Your task to perform on an android device: Open internet settings Image 0: 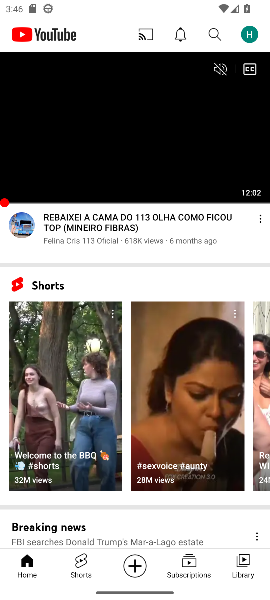
Step 0: press home button
Your task to perform on an android device: Open internet settings Image 1: 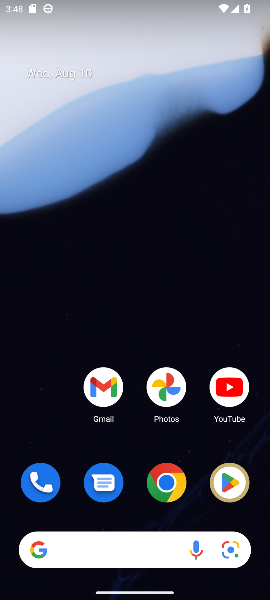
Step 1: drag from (147, 503) to (153, 32)
Your task to perform on an android device: Open internet settings Image 2: 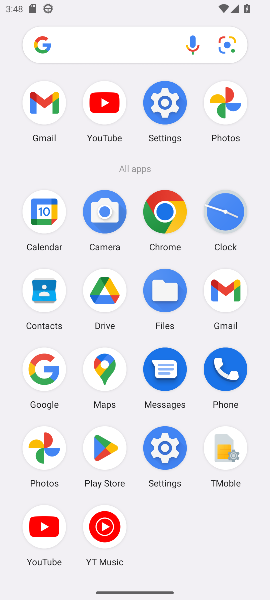
Step 2: click (171, 444)
Your task to perform on an android device: Open internet settings Image 3: 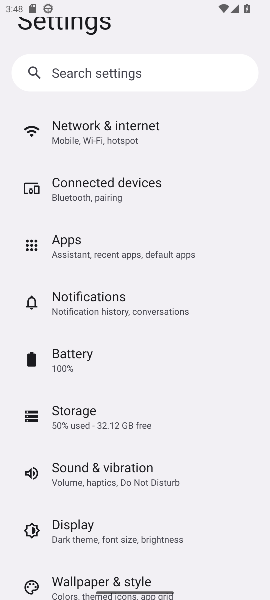
Step 3: drag from (178, 537) to (165, 300)
Your task to perform on an android device: Open internet settings Image 4: 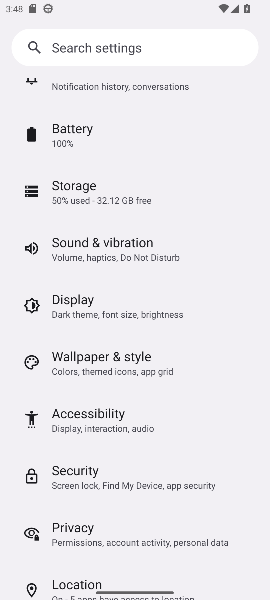
Step 4: drag from (149, 476) to (144, 552)
Your task to perform on an android device: Open internet settings Image 5: 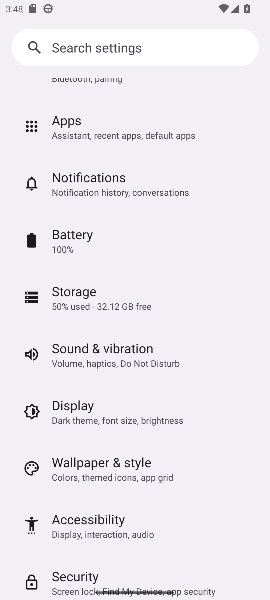
Step 5: drag from (127, 138) to (107, 482)
Your task to perform on an android device: Open internet settings Image 6: 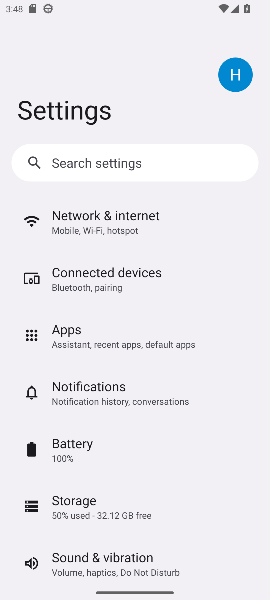
Step 6: click (122, 216)
Your task to perform on an android device: Open internet settings Image 7: 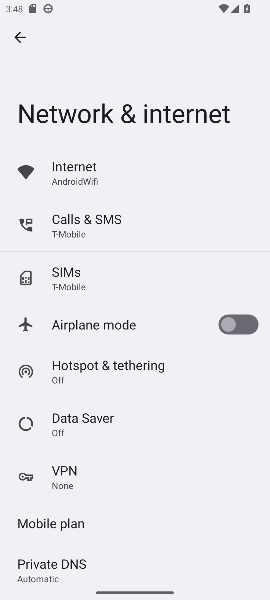
Step 7: task complete